Your task to perform on an android device: Do I have any events today? Image 0: 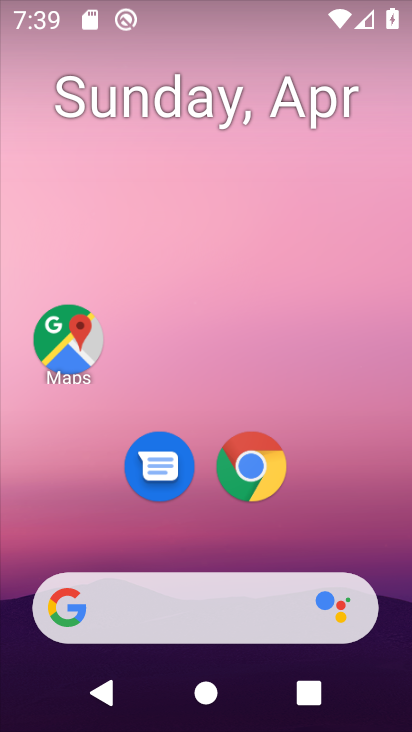
Step 0: drag from (246, 164) to (398, 315)
Your task to perform on an android device: Do I have any events today? Image 1: 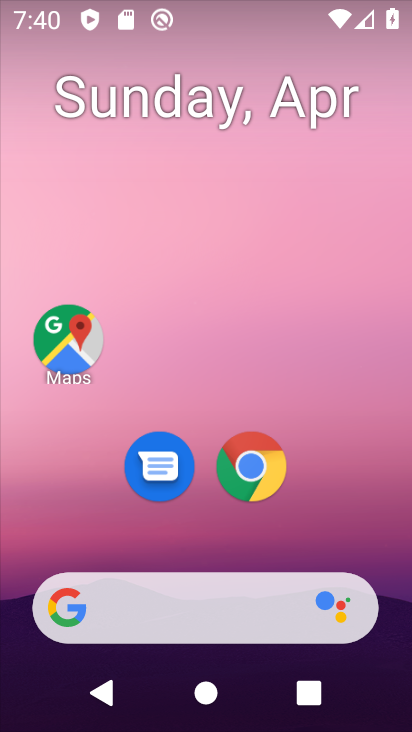
Step 1: drag from (212, 557) to (244, 20)
Your task to perform on an android device: Do I have any events today? Image 2: 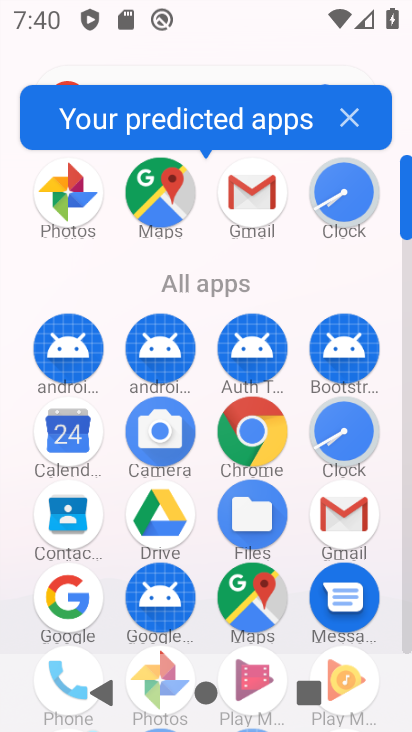
Step 2: click (73, 452)
Your task to perform on an android device: Do I have any events today? Image 3: 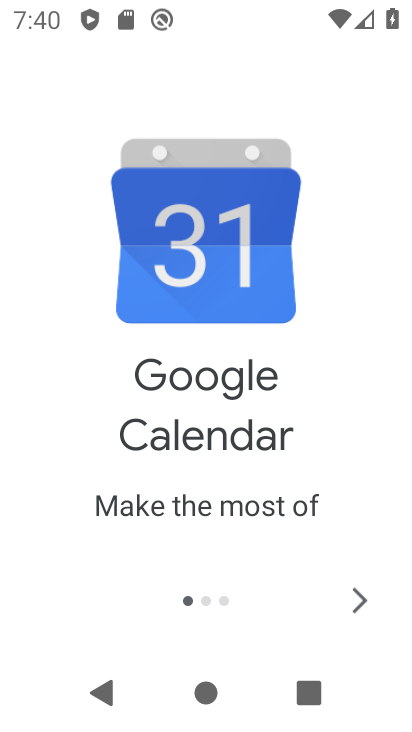
Step 3: click (352, 611)
Your task to perform on an android device: Do I have any events today? Image 4: 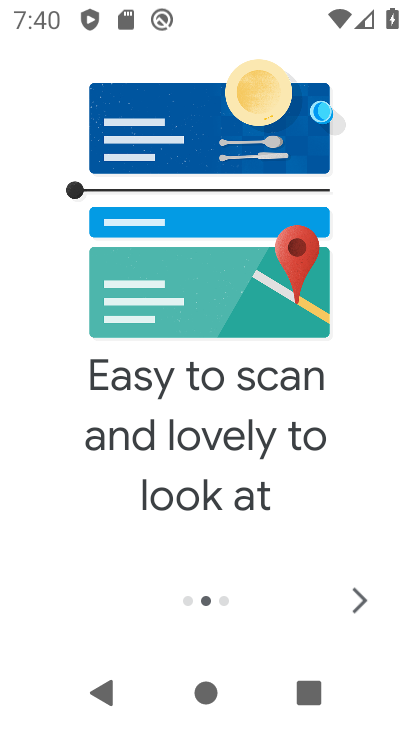
Step 4: click (355, 604)
Your task to perform on an android device: Do I have any events today? Image 5: 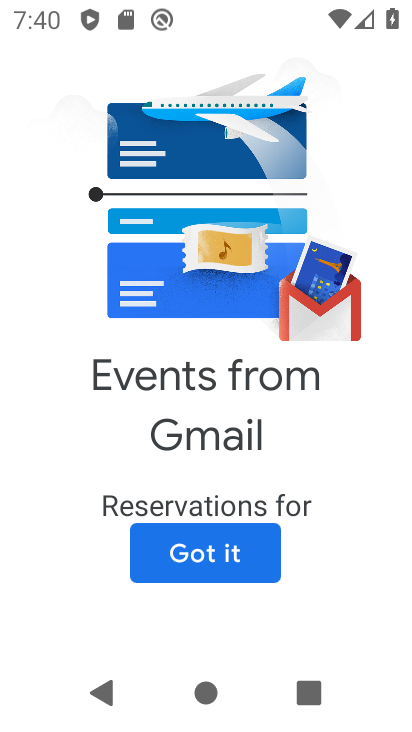
Step 5: click (237, 556)
Your task to perform on an android device: Do I have any events today? Image 6: 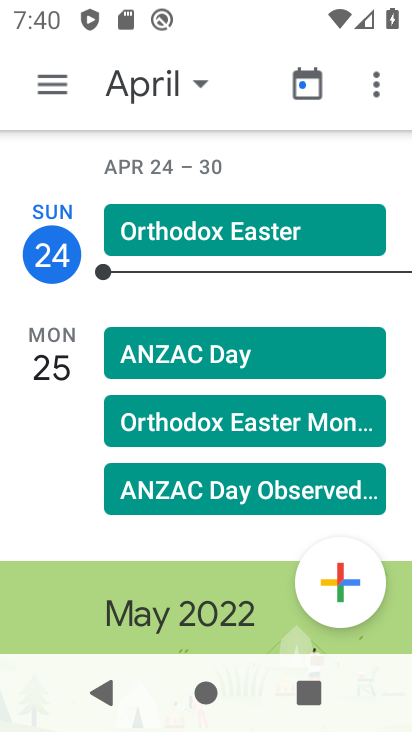
Step 6: click (56, 91)
Your task to perform on an android device: Do I have any events today? Image 7: 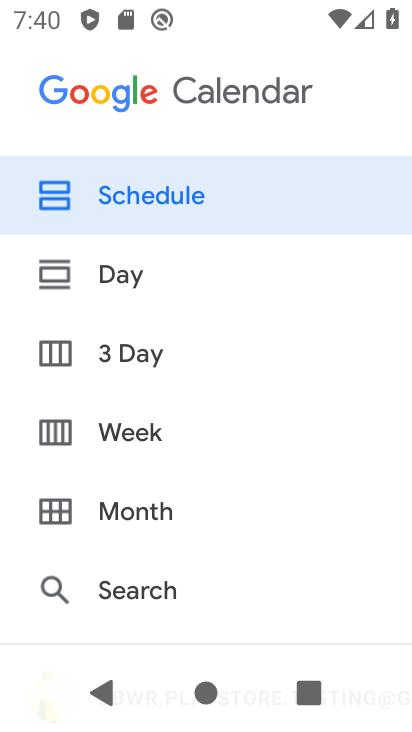
Step 7: drag from (117, 524) to (217, 136)
Your task to perform on an android device: Do I have any events today? Image 8: 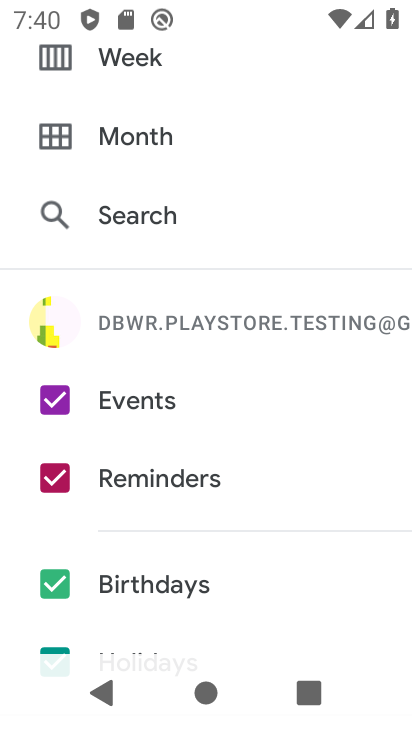
Step 8: click (123, 485)
Your task to perform on an android device: Do I have any events today? Image 9: 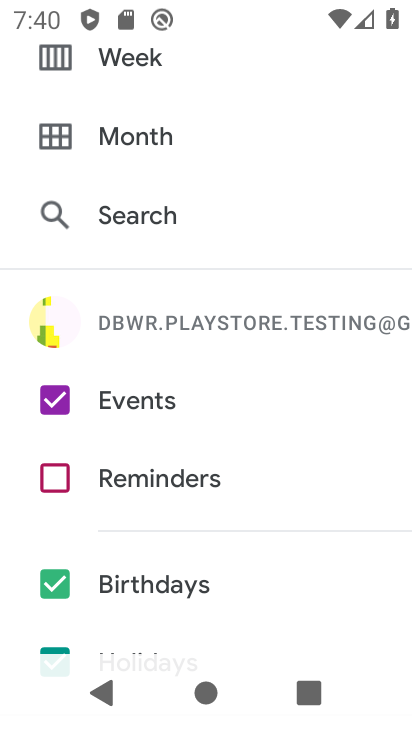
Step 9: drag from (113, 561) to (172, 244)
Your task to perform on an android device: Do I have any events today? Image 10: 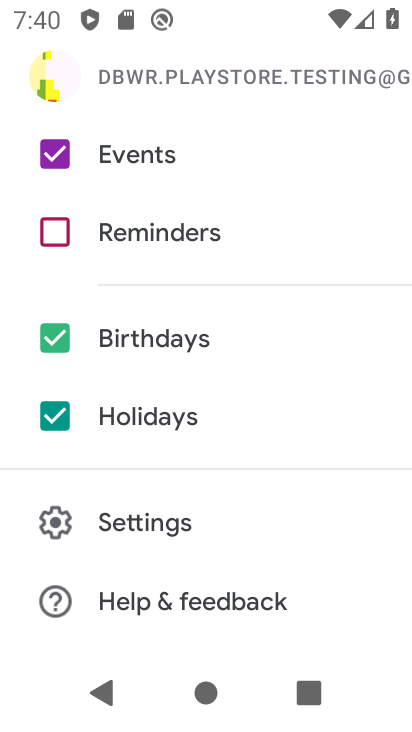
Step 10: click (128, 321)
Your task to perform on an android device: Do I have any events today? Image 11: 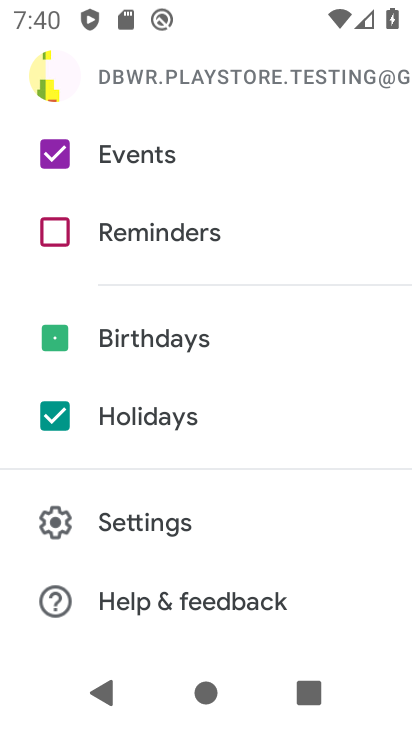
Step 11: click (131, 419)
Your task to perform on an android device: Do I have any events today? Image 12: 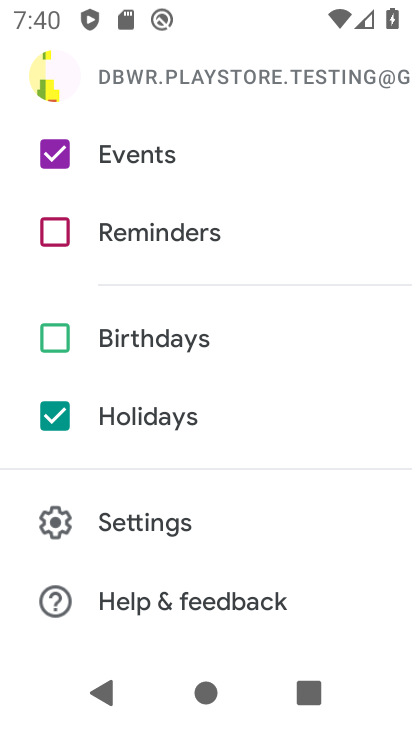
Step 12: drag from (183, 253) to (122, 662)
Your task to perform on an android device: Do I have any events today? Image 13: 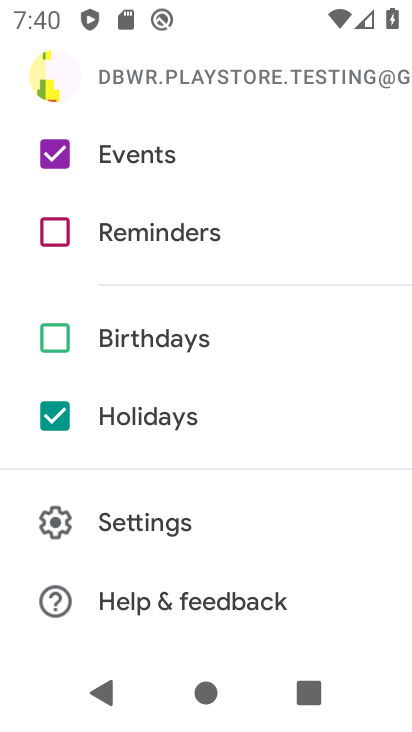
Step 13: click (94, 423)
Your task to perform on an android device: Do I have any events today? Image 14: 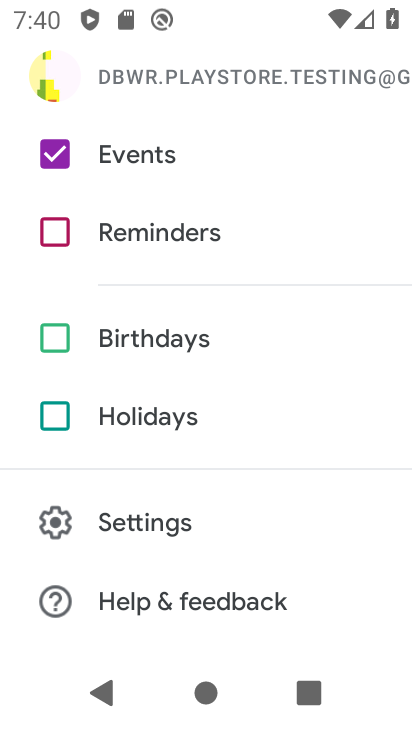
Step 14: drag from (247, 121) to (217, 574)
Your task to perform on an android device: Do I have any events today? Image 15: 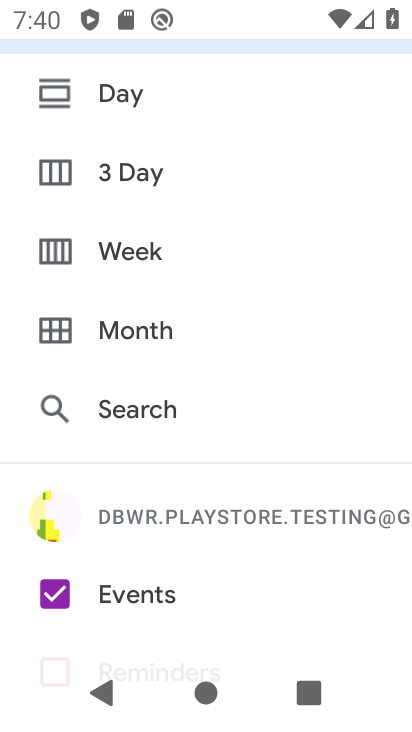
Step 15: click (122, 179)
Your task to perform on an android device: Do I have any events today? Image 16: 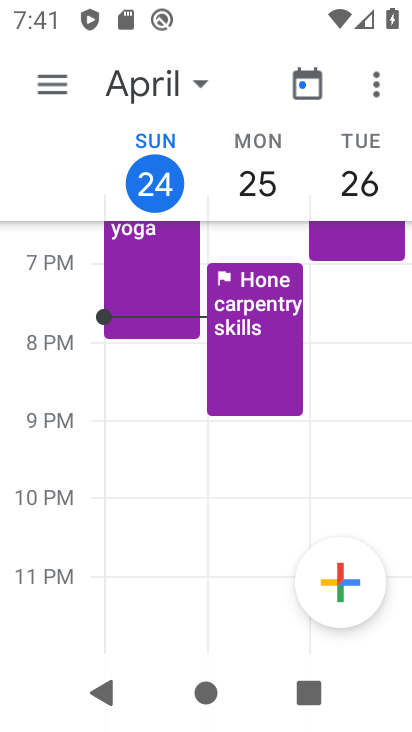
Step 16: task complete